Your task to perform on an android device: toggle sleep mode Image 0: 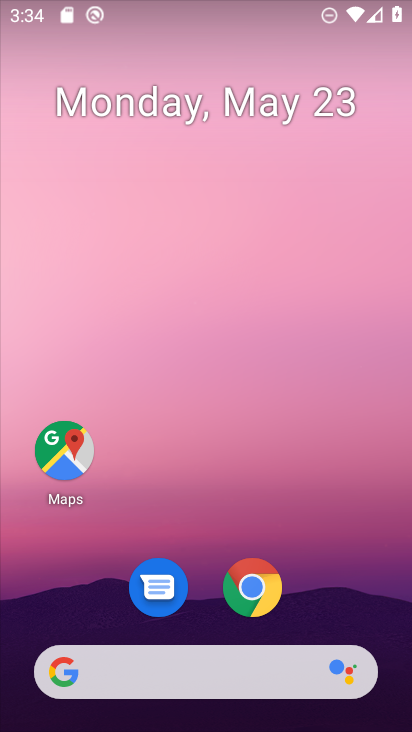
Step 0: drag from (212, 542) to (158, 10)
Your task to perform on an android device: toggle sleep mode Image 1: 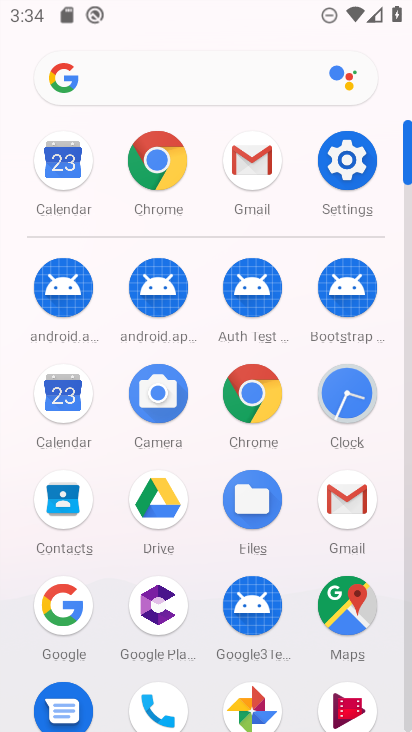
Step 1: click (355, 173)
Your task to perform on an android device: toggle sleep mode Image 2: 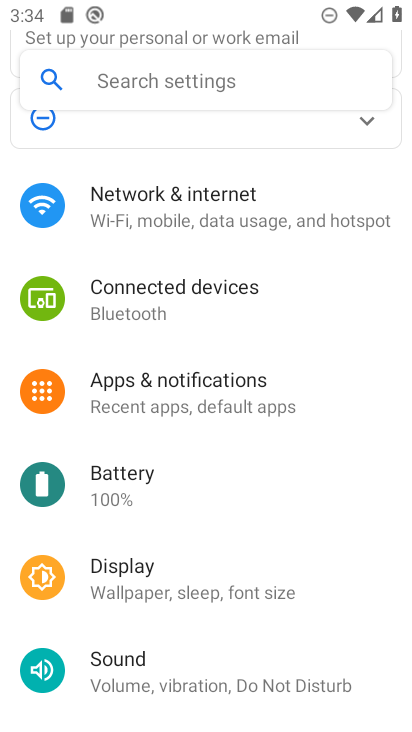
Step 2: click (198, 85)
Your task to perform on an android device: toggle sleep mode Image 3: 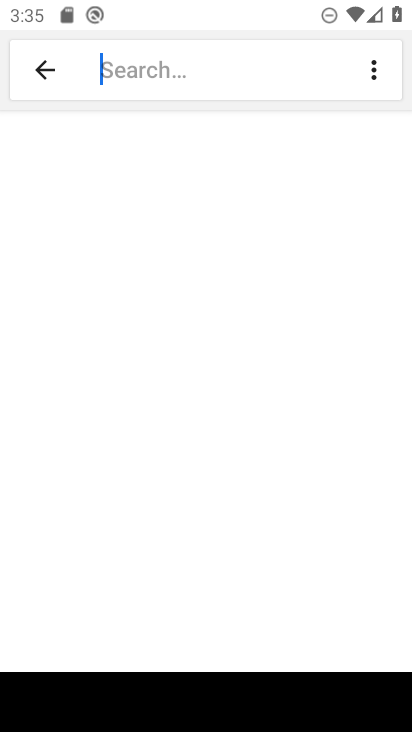
Step 3: type "sleep mode"
Your task to perform on an android device: toggle sleep mode Image 4: 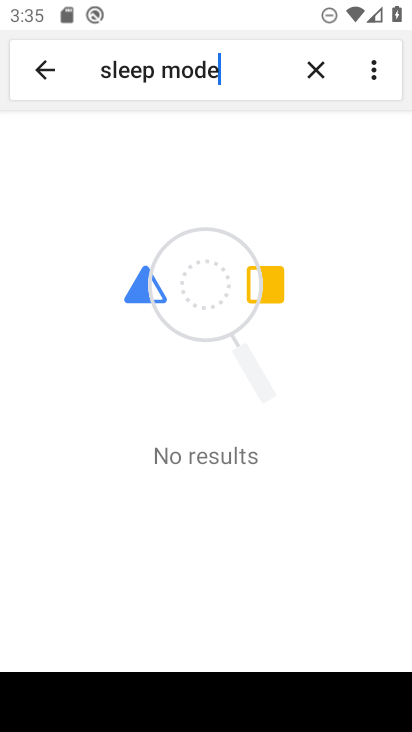
Step 4: task complete